Your task to perform on an android device: Go to Reddit.com Image 0: 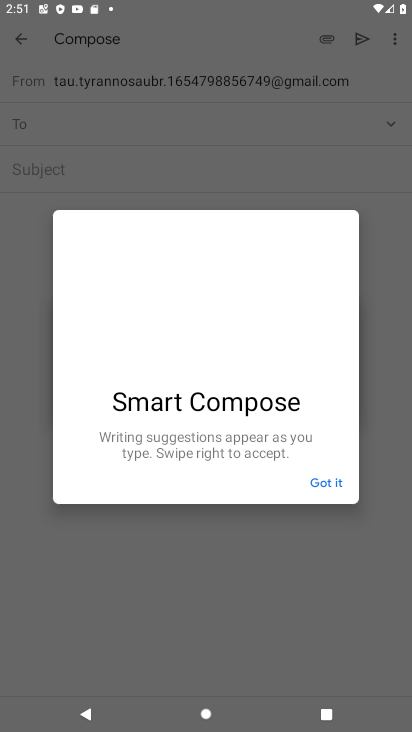
Step 0: press home button
Your task to perform on an android device: Go to Reddit.com Image 1: 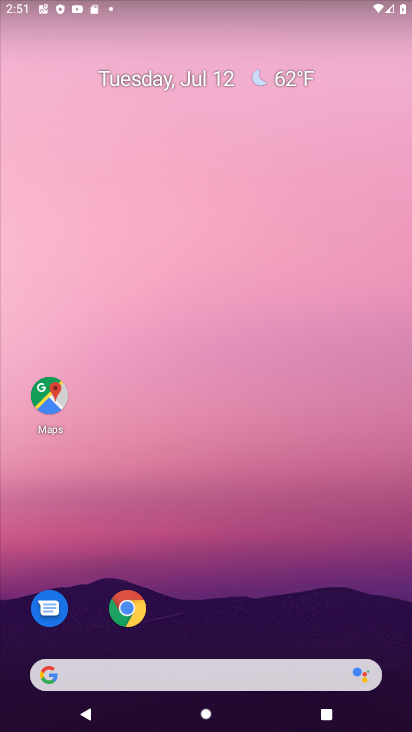
Step 1: click (125, 611)
Your task to perform on an android device: Go to Reddit.com Image 2: 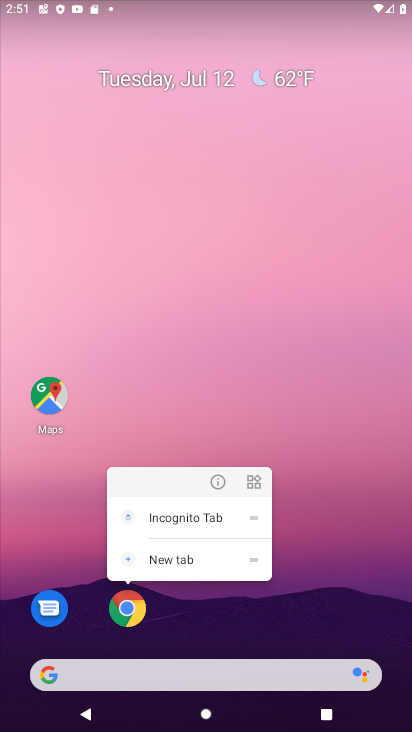
Step 2: click (125, 611)
Your task to perform on an android device: Go to Reddit.com Image 3: 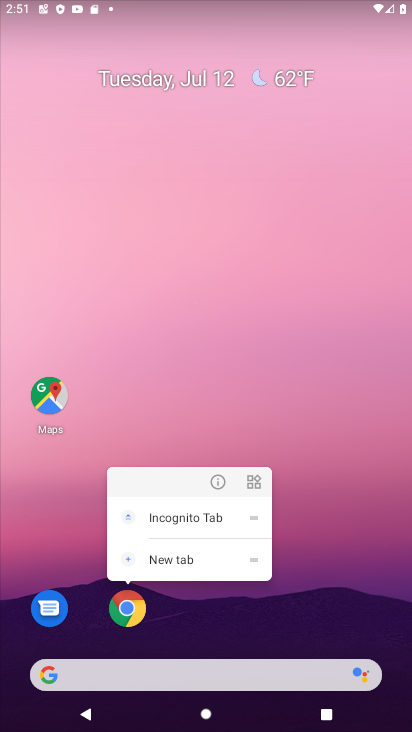
Step 3: click (125, 611)
Your task to perform on an android device: Go to Reddit.com Image 4: 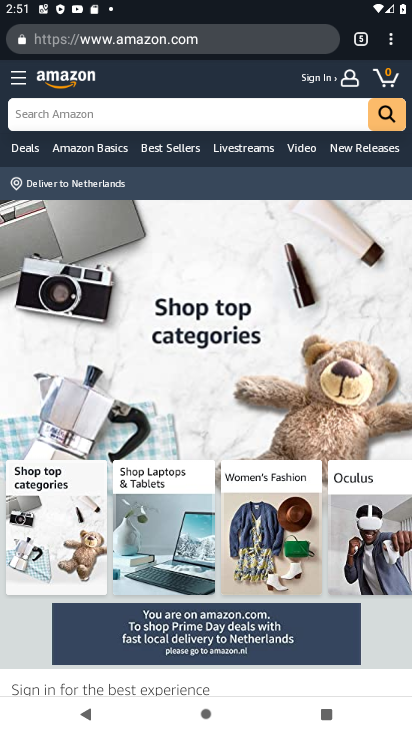
Step 4: drag from (385, 48) to (300, 79)
Your task to perform on an android device: Go to Reddit.com Image 5: 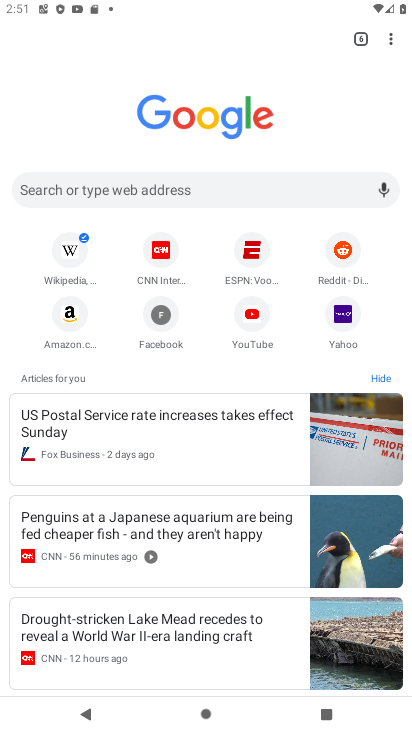
Step 5: click (130, 187)
Your task to perform on an android device: Go to Reddit.com Image 6: 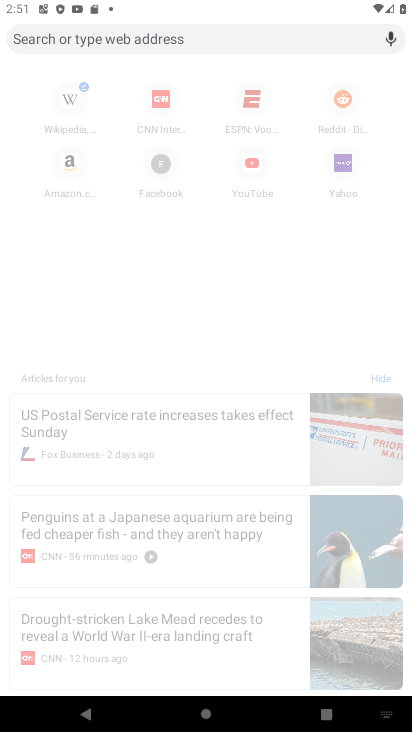
Step 6: click (346, 116)
Your task to perform on an android device: Go to Reddit.com Image 7: 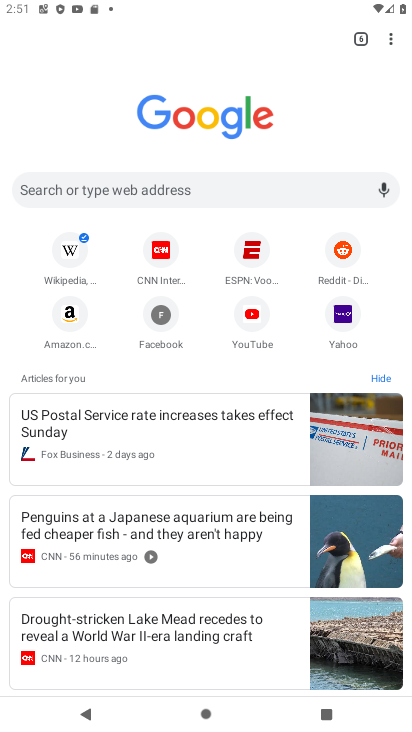
Step 7: click (336, 257)
Your task to perform on an android device: Go to Reddit.com Image 8: 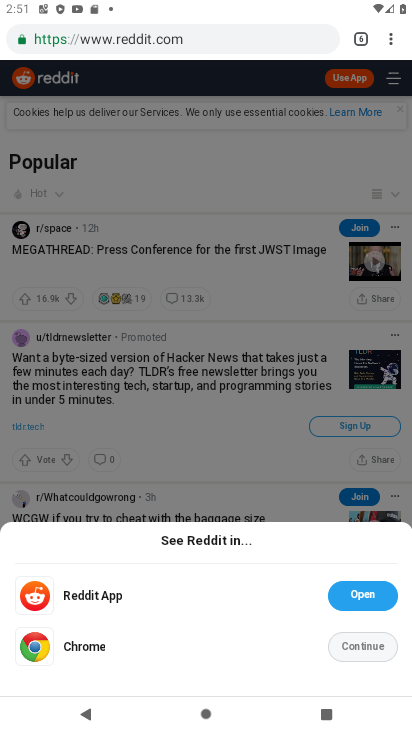
Step 8: task complete